Your task to perform on an android device: toggle translation in the chrome app Image 0: 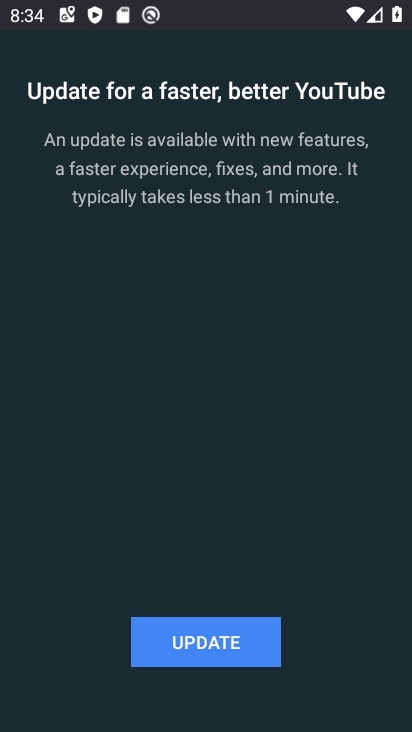
Step 0: drag from (301, 650) to (375, 464)
Your task to perform on an android device: toggle translation in the chrome app Image 1: 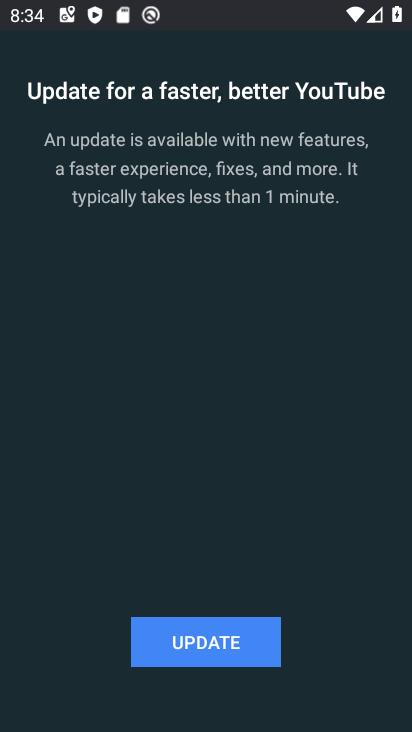
Step 1: press back button
Your task to perform on an android device: toggle translation in the chrome app Image 2: 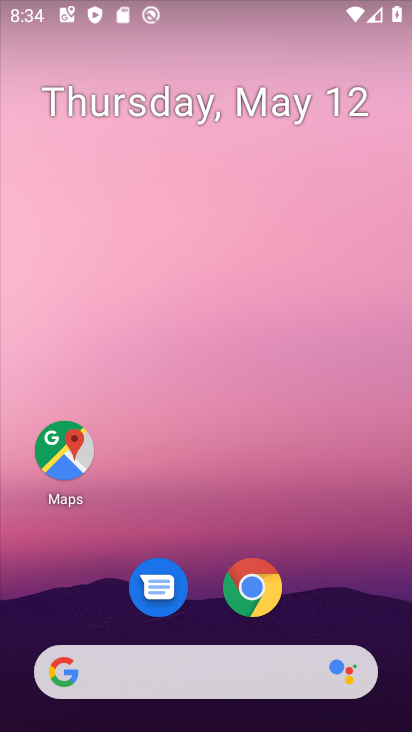
Step 2: drag from (302, 588) to (353, 244)
Your task to perform on an android device: toggle translation in the chrome app Image 3: 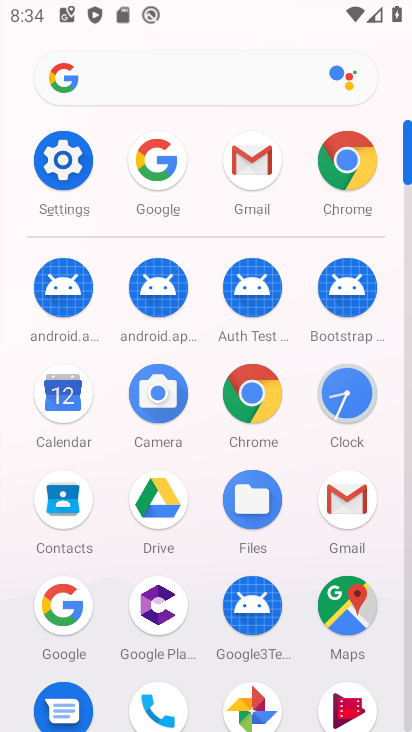
Step 3: click (351, 167)
Your task to perform on an android device: toggle translation in the chrome app Image 4: 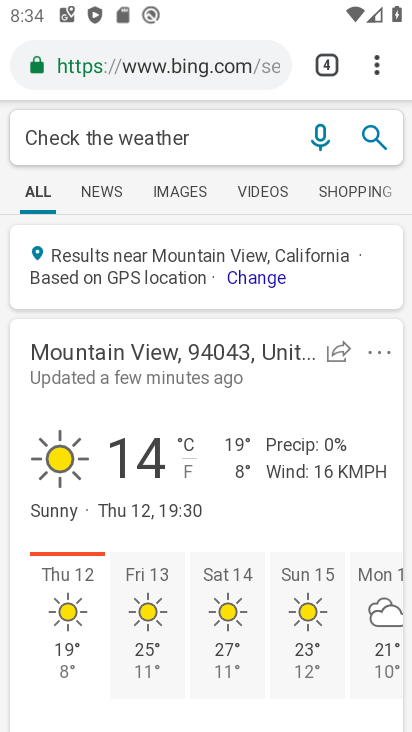
Step 4: click (359, 64)
Your task to perform on an android device: toggle translation in the chrome app Image 5: 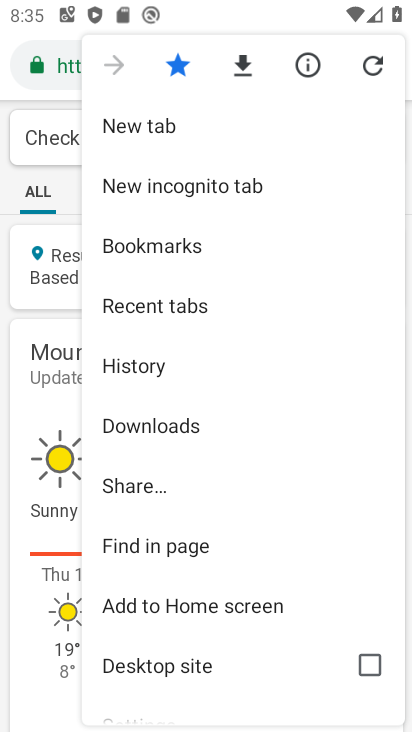
Step 5: drag from (264, 507) to (295, 263)
Your task to perform on an android device: toggle translation in the chrome app Image 6: 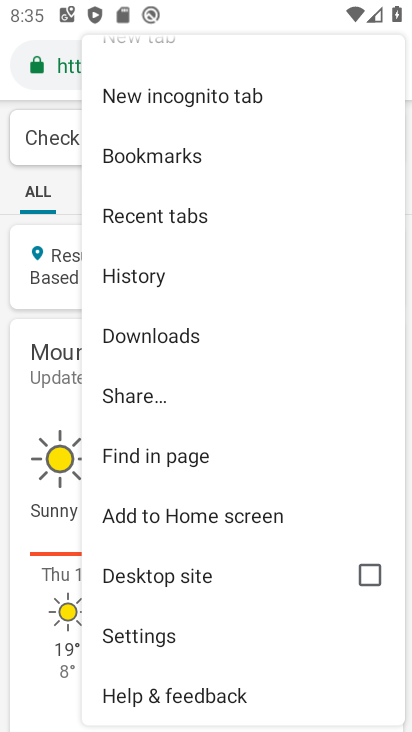
Step 6: click (177, 639)
Your task to perform on an android device: toggle translation in the chrome app Image 7: 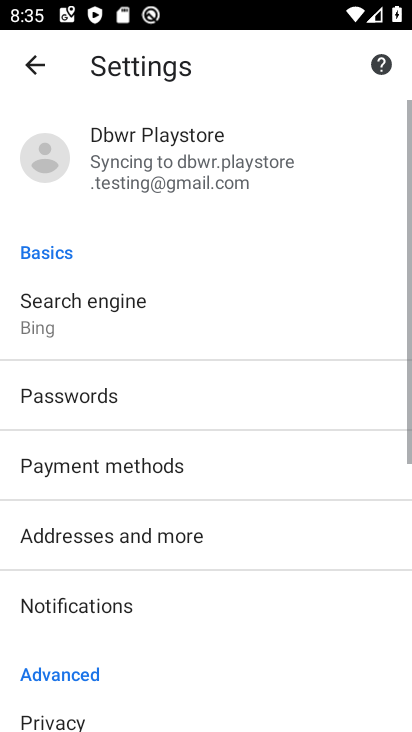
Step 7: drag from (252, 588) to (286, 234)
Your task to perform on an android device: toggle translation in the chrome app Image 8: 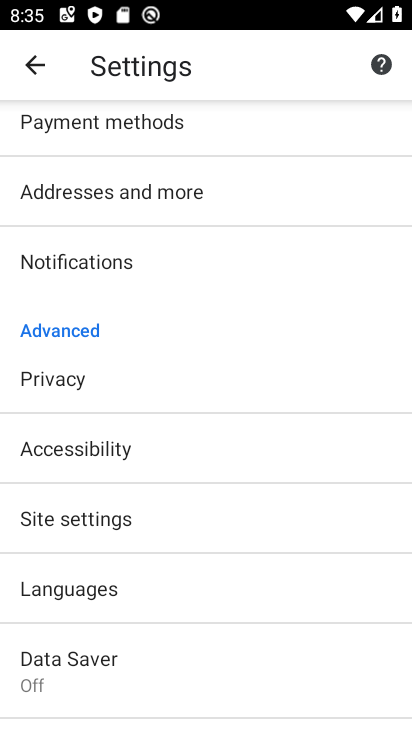
Step 8: click (155, 504)
Your task to perform on an android device: toggle translation in the chrome app Image 9: 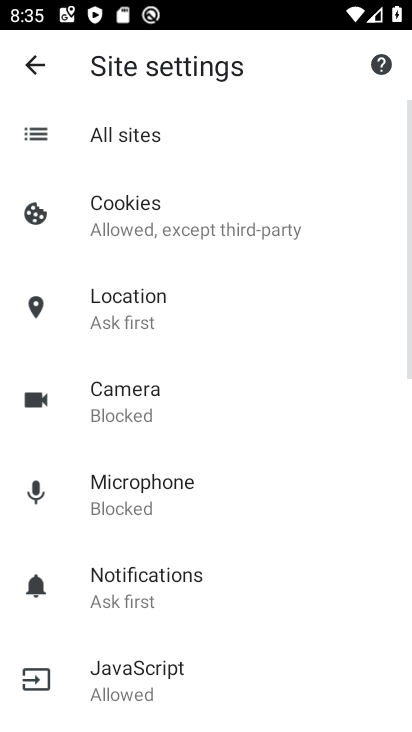
Step 9: click (34, 70)
Your task to perform on an android device: toggle translation in the chrome app Image 10: 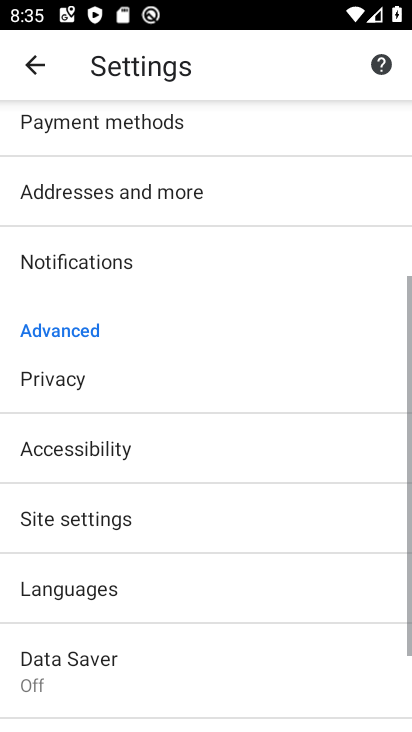
Step 10: click (163, 591)
Your task to perform on an android device: toggle translation in the chrome app Image 11: 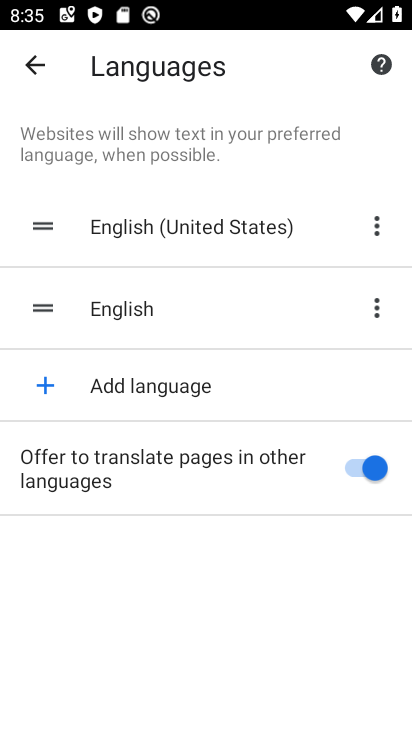
Step 11: click (359, 469)
Your task to perform on an android device: toggle translation in the chrome app Image 12: 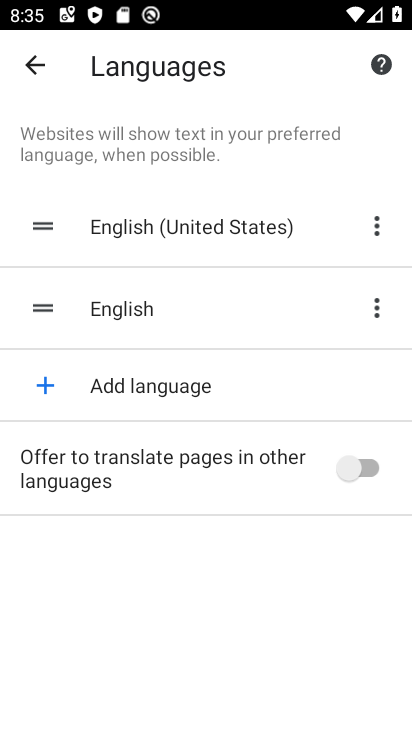
Step 12: task complete